Your task to perform on an android device: turn off improve location accuracy Image 0: 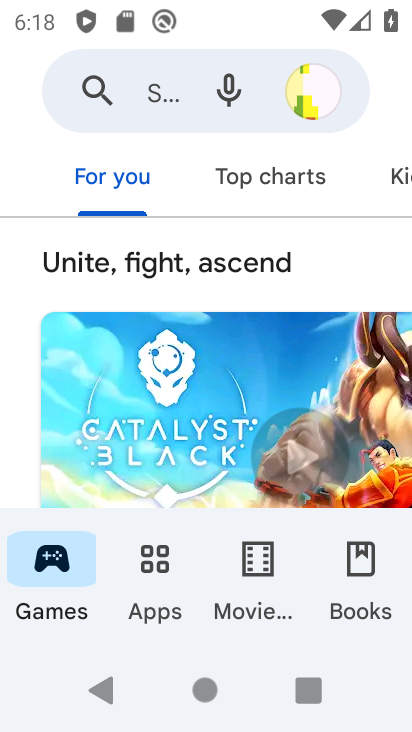
Step 0: press home button
Your task to perform on an android device: turn off improve location accuracy Image 1: 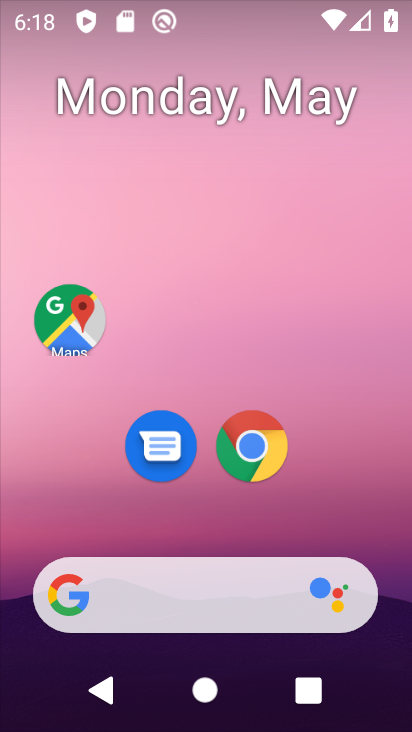
Step 1: drag from (328, 510) to (213, 54)
Your task to perform on an android device: turn off improve location accuracy Image 2: 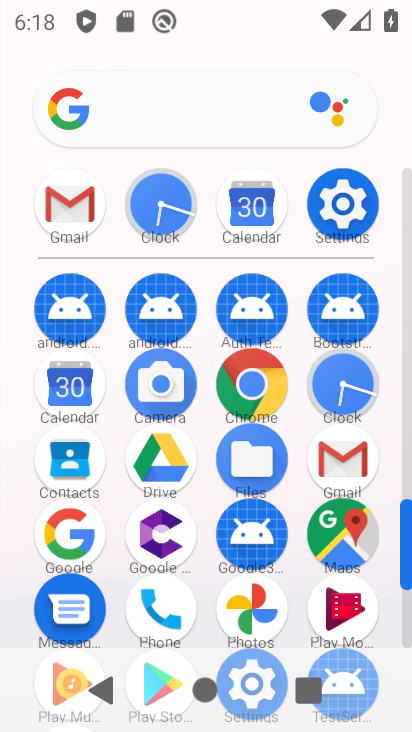
Step 2: click (330, 208)
Your task to perform on an android device: turn off improve location accuracy Image 3: 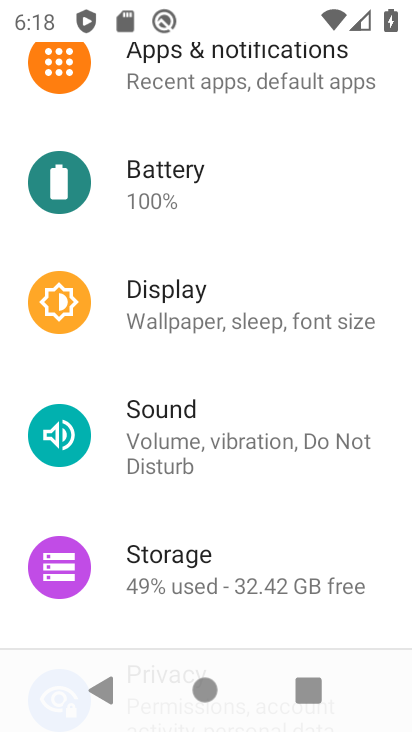
Step 3: drag from (244, 502) to (205, 161)
Your task to perform on an android device: turn off improve location accuracy Image 4: 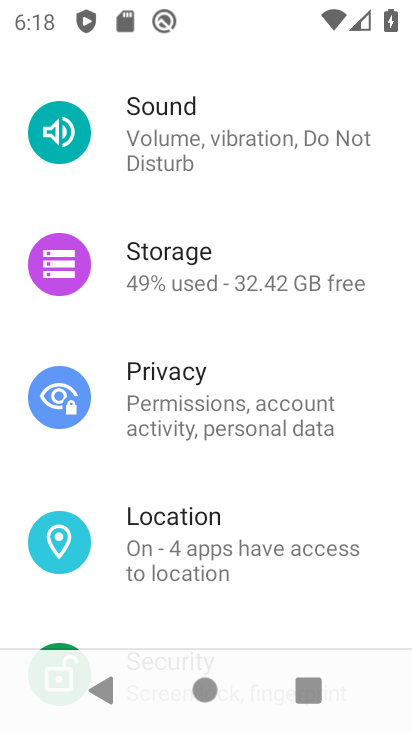
Step 4: click (168, 529)
Your task to perform on an android device: turn off improve location accuracy Image 5: 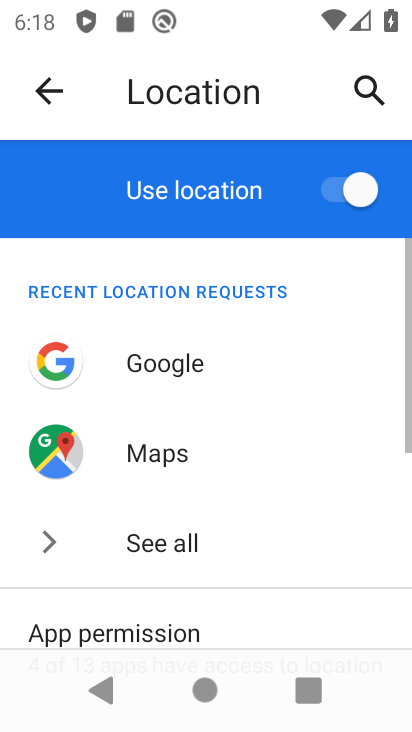
Step 5: drag from (218, 509) to (165, 89)
Your task to perform on an android device: turn off improve location accuracy Image 6: 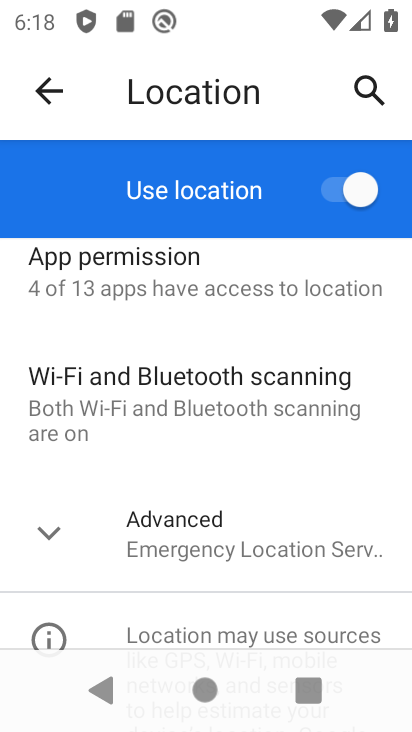
Step 6: click (48, 547)
Your task to perform on an android device: turn off improve location accuracy Image 7: 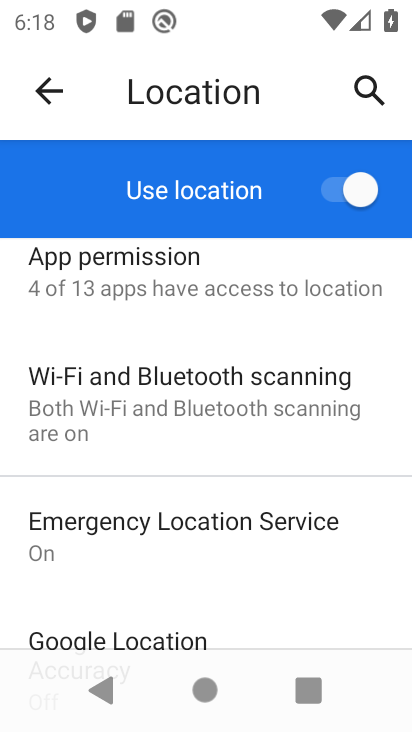
Step 7: drag from (233, 541) to (198, 178)
Your task to perform on an android device: turn off improve location accuracy Image 8: 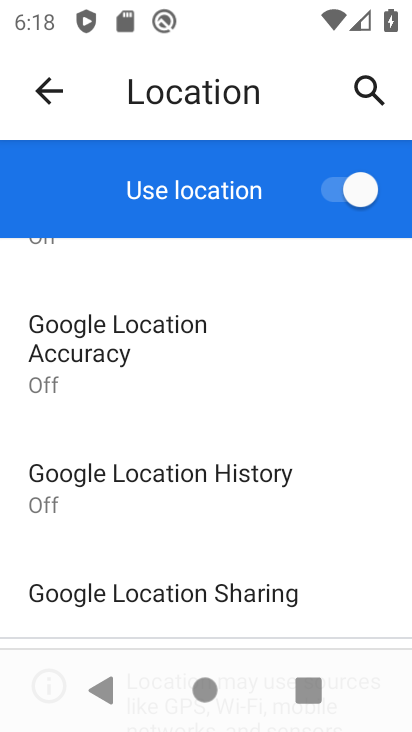
Step 8: click (123, 347)
Your task to perform on an android device: turn off improve location accuracy Image 9: 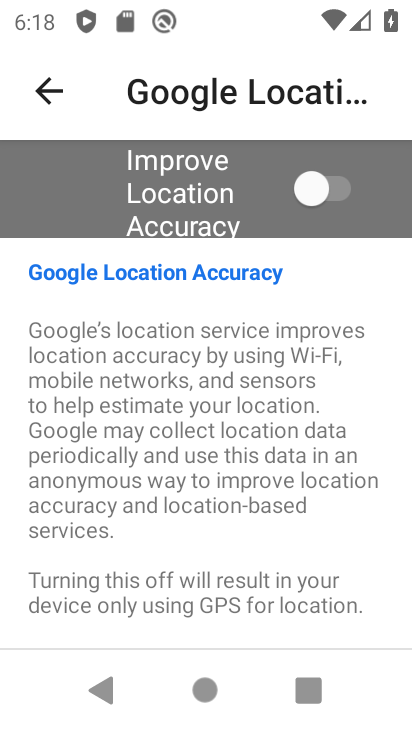
Step 9: task complete